Your task to perform on an android device: Go to Amazon Image 0: 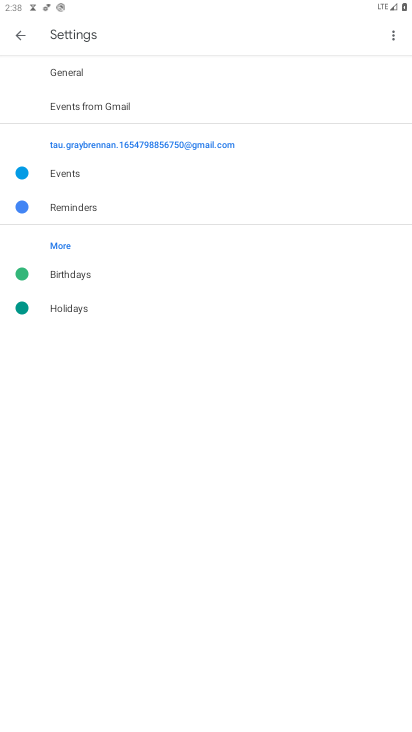
Step 0: press home button
Your task to perform on an android device: Go to Amazon Image 1: 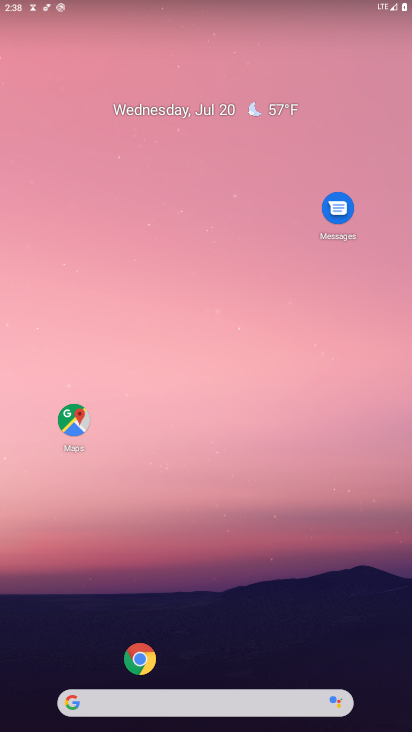
Step 1: click (145, 691)
Your task to perform on an android device: Go to Amazon Image 2: 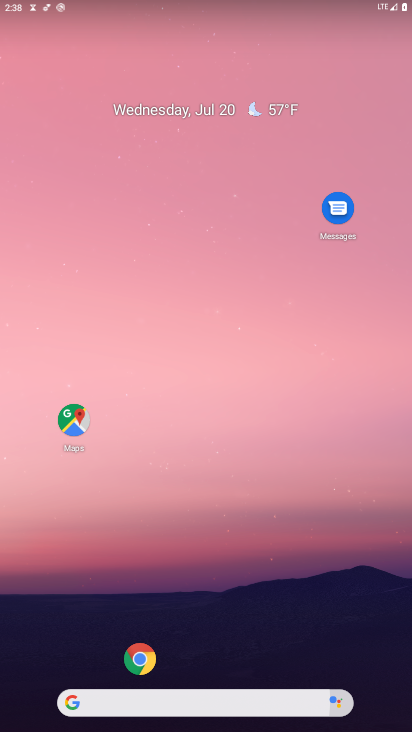
Step 2: click (134, 708)
Your task to perform on an android device: Go to Amazon Image 3: 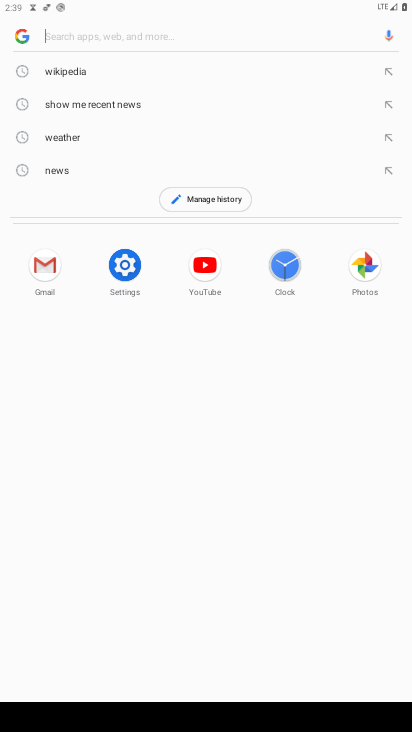
Step 3: type "Amazon"
Your task to perform on an android device: Go to Amazon Image 4: 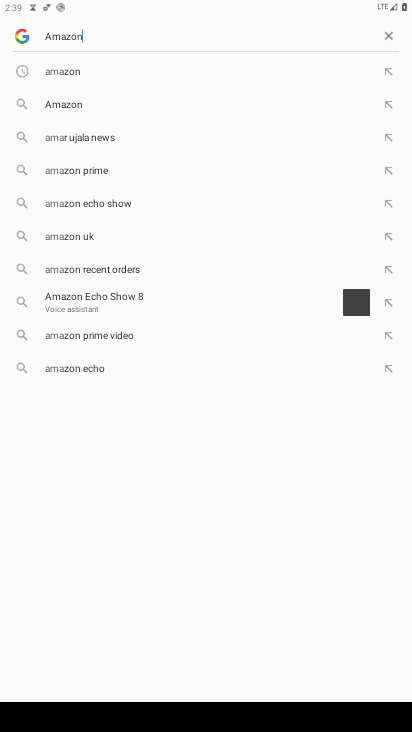
Step 4: type ""
Your task to perform on an android device: Go to Amazon Image 5: 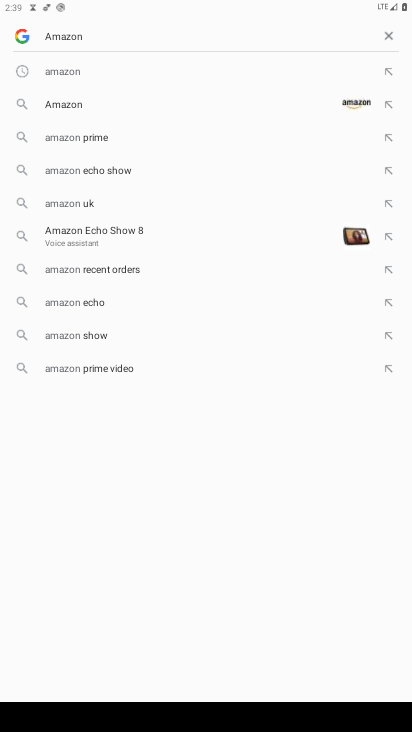
Step 5: click (64, 75)
Your task to perform on an android device: Go to Amazon Image 6: 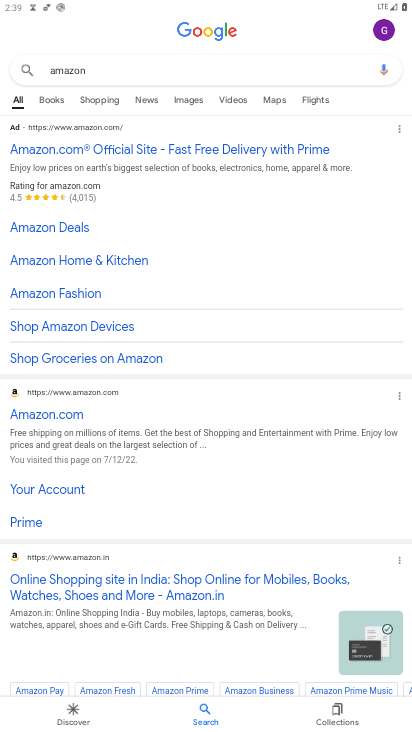
Step 6: task complete